Your task to perform on an android device: Go to Maps Image 0: 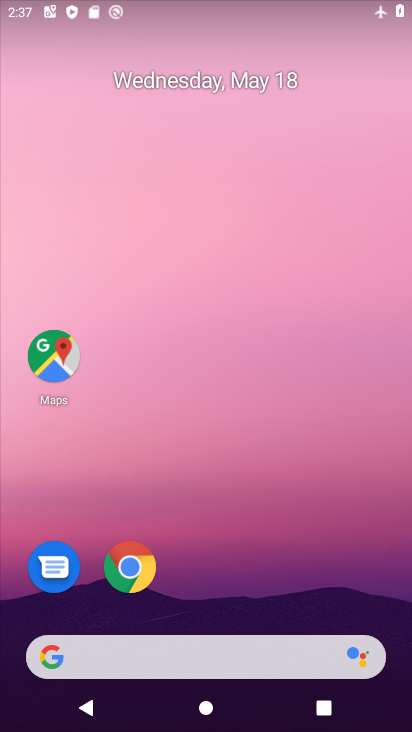
Step 0: click (53, 343)
Your task to perform on an android device: Go to Maps Image 1: 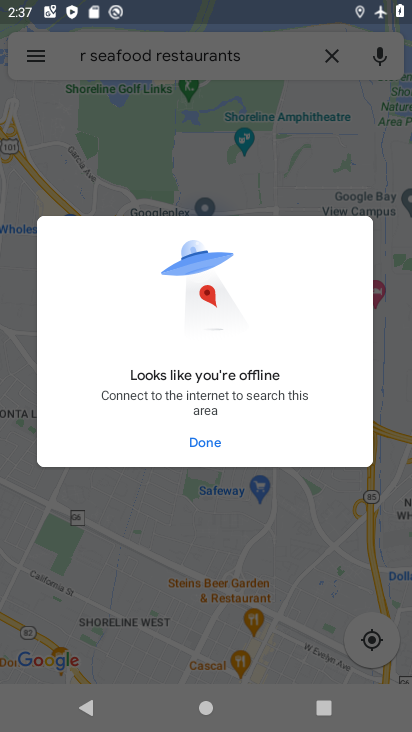
Step 1: click (204, 433)
Your task to perform on an android device: Go to Maps Image 2: 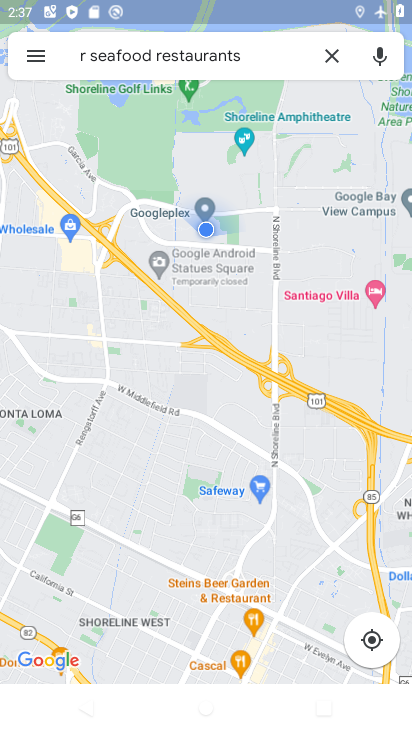
Step 2: task complete